Your task to perform on an android device: Go to wifi settings Image 0: 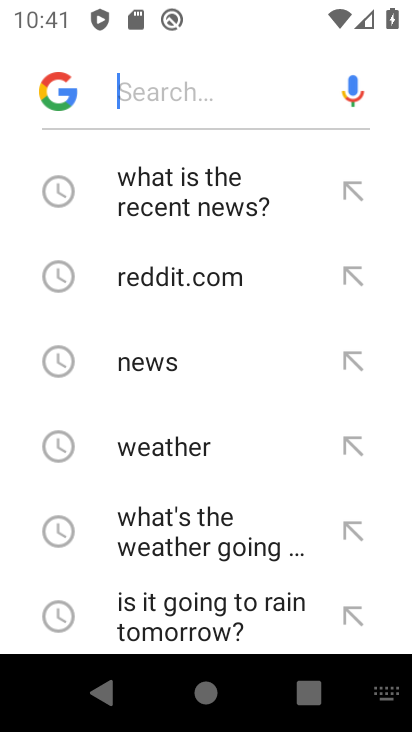
Step 0: press home button
Your task to perform on an android device: Go to wifi settings Image 1: 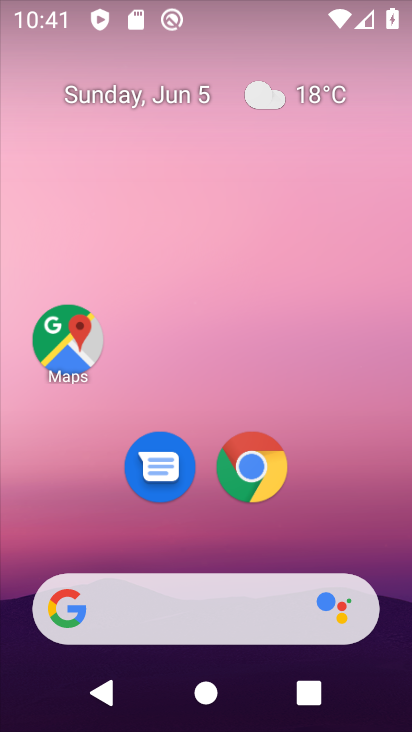
Step 1: drag from (308, 522) to (365, 107)
Your task to perform on an android device: Go to wifi settings Image 2: 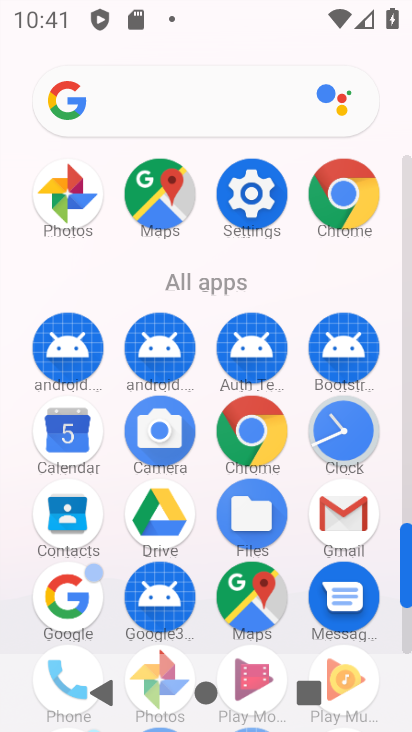
Step 2: drag from (252, 7) to (199, 448)
Your task to perform on an android device: Go to wifi settings Image 3: 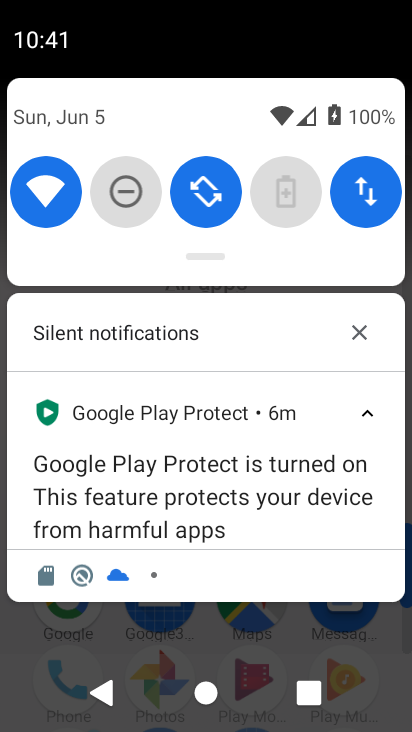
Step 3: click (42, 191)
Your task to perform on an android device: Go to wifi settings Image 4: 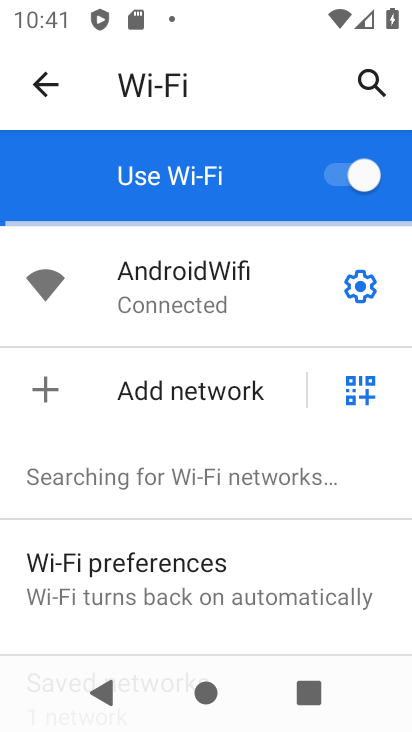
Step 4: task complete